Your task to perform on an android device: open app "Paramount+ | Peak Streaming" (install if not already installed) Image 0: 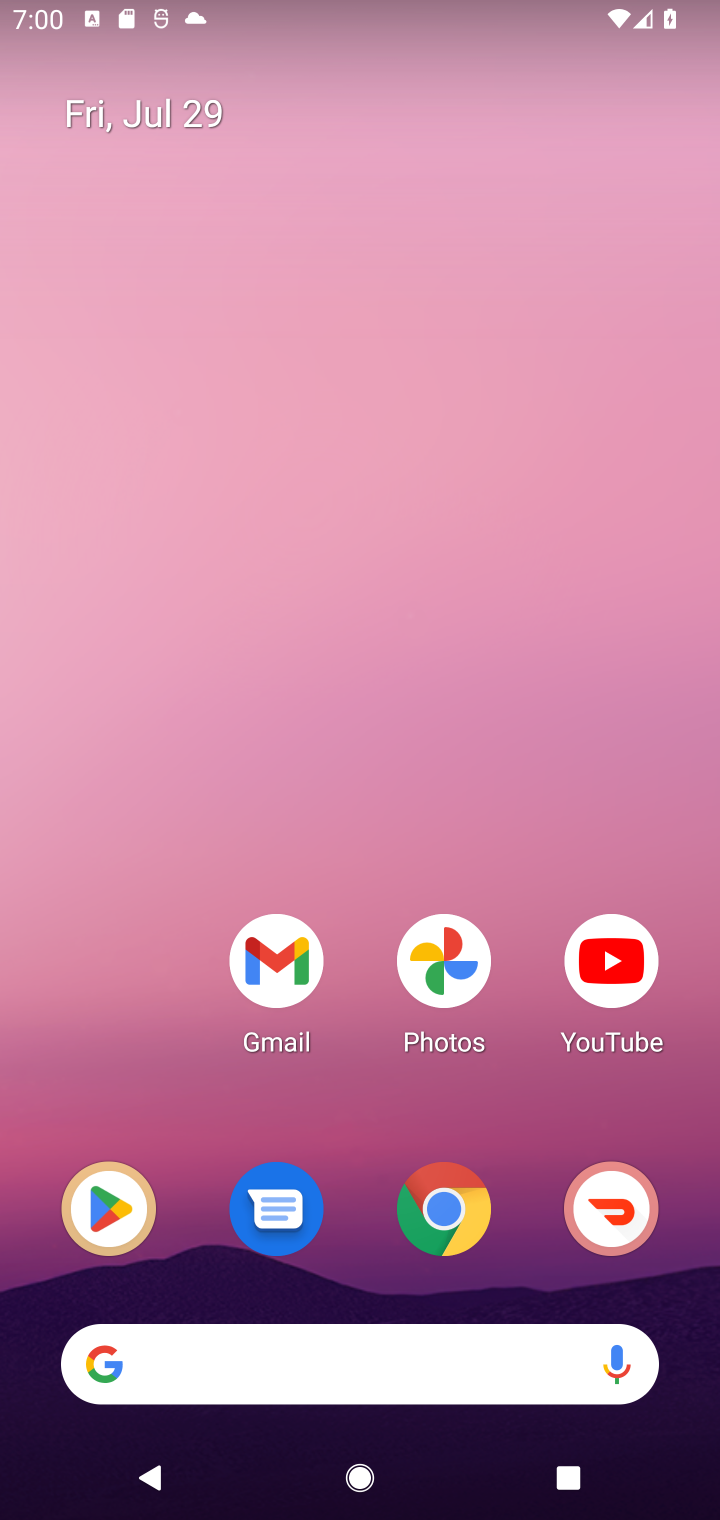
Step 0: click (106, 1231)
Your task to perform on an android device: open app "Paramount+ | Peak Streaming" (install if not already installed) Image 1: 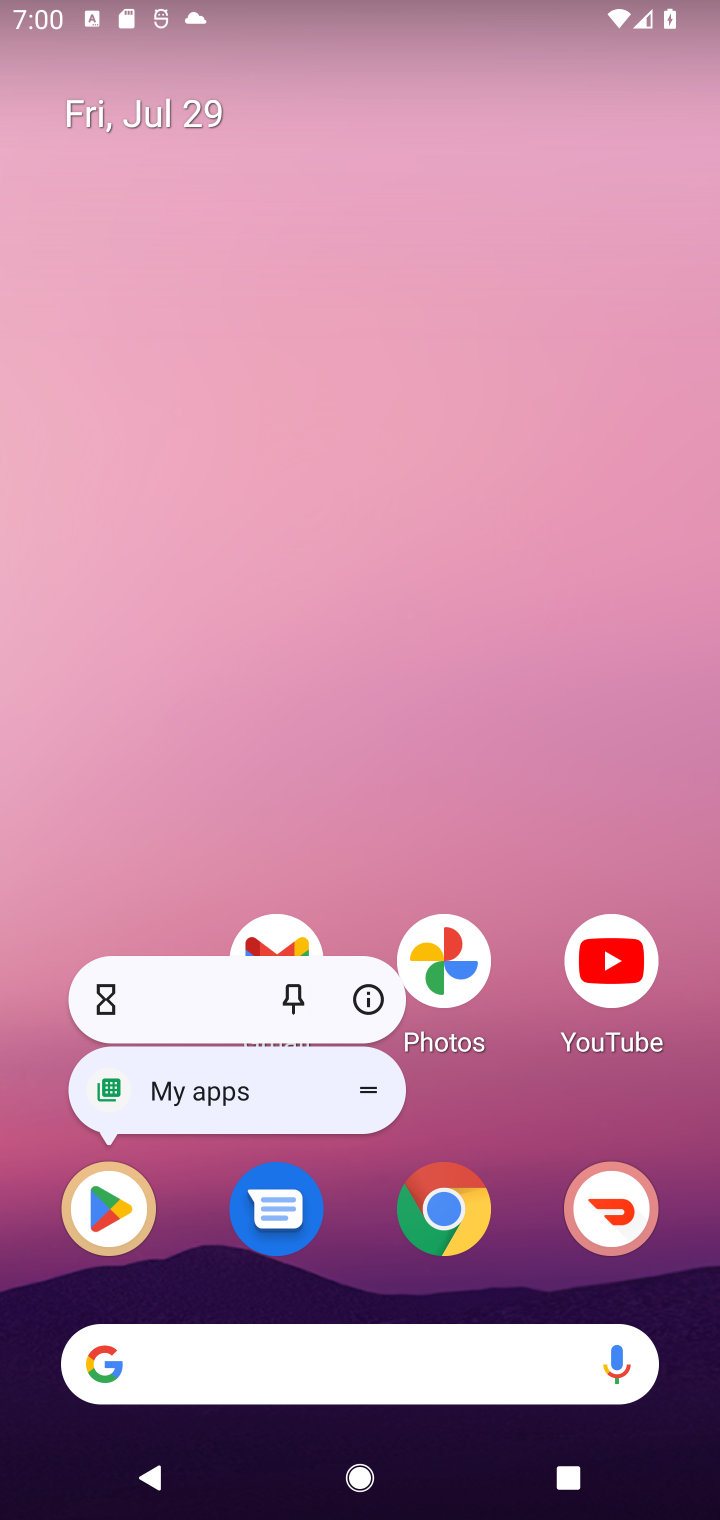
Step 1: click (106, 1231)
Your task to perform on an android device: open app "Paramount+ | Peak Streaming" (install if not already installed) Image 2: 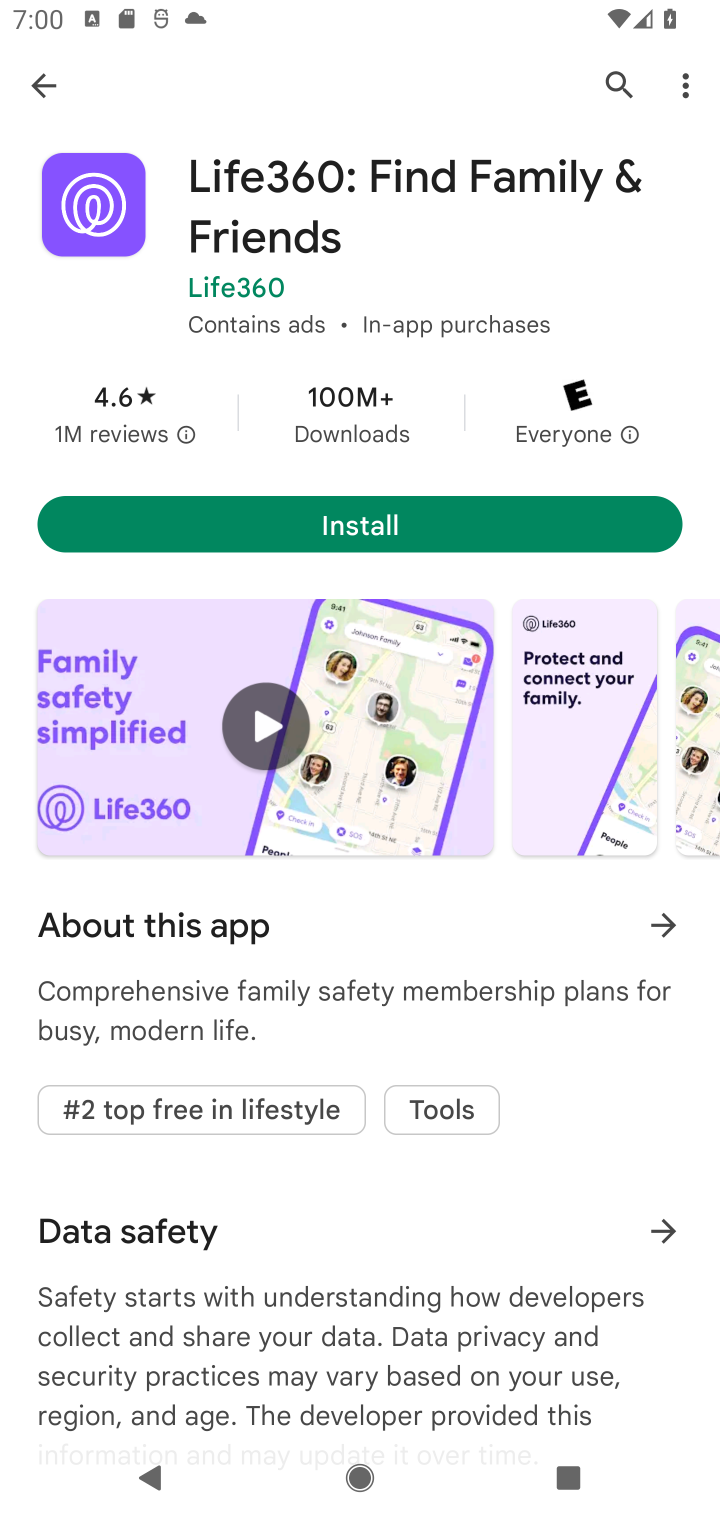
Step 2: click (611, 68)
Your task to perform on an android device: open app "Paramount+ | Peak Streaming" (install if not already installed) Image 3: 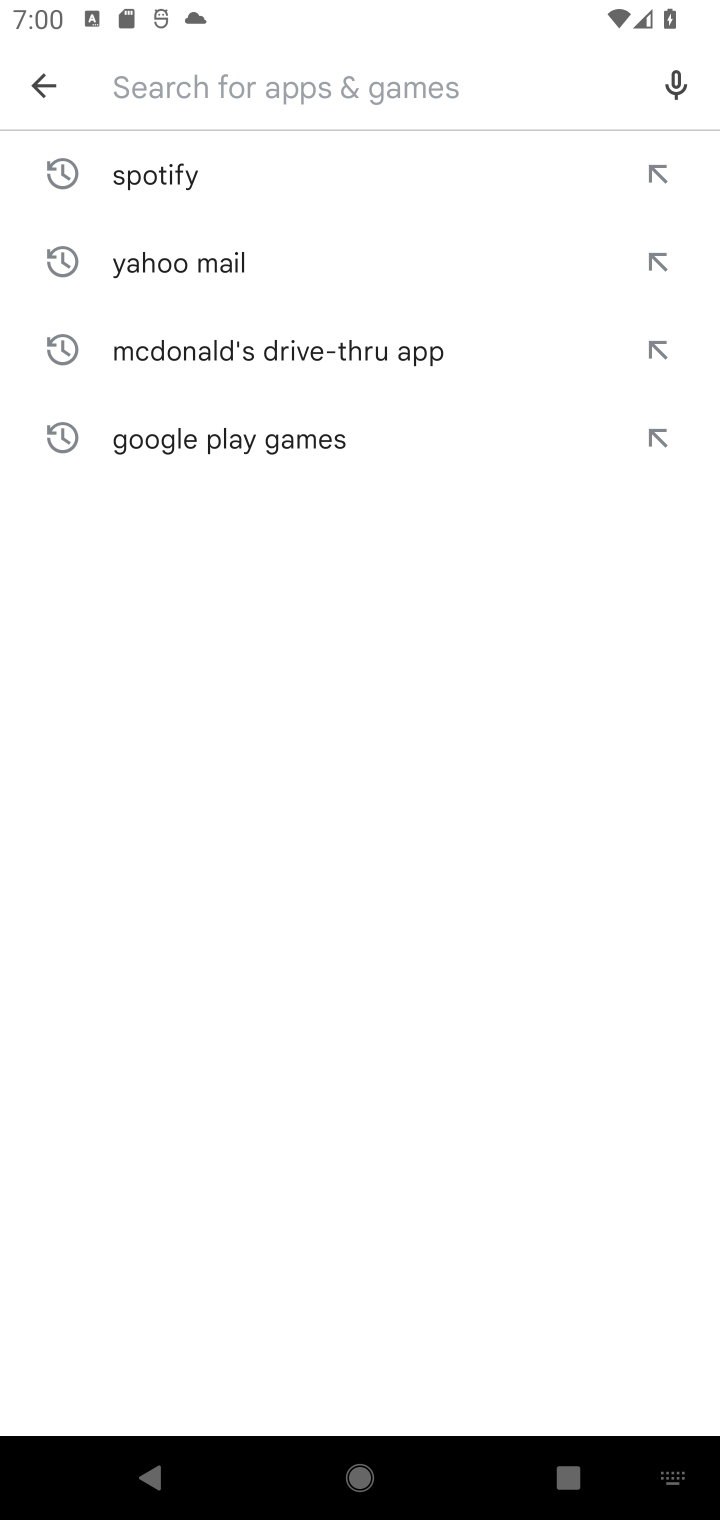
Step 3: click (377, 81)
Your task to perform on an android device: open app "Paramount+ | Peak Streaming" (install if not already installed) Image 4: 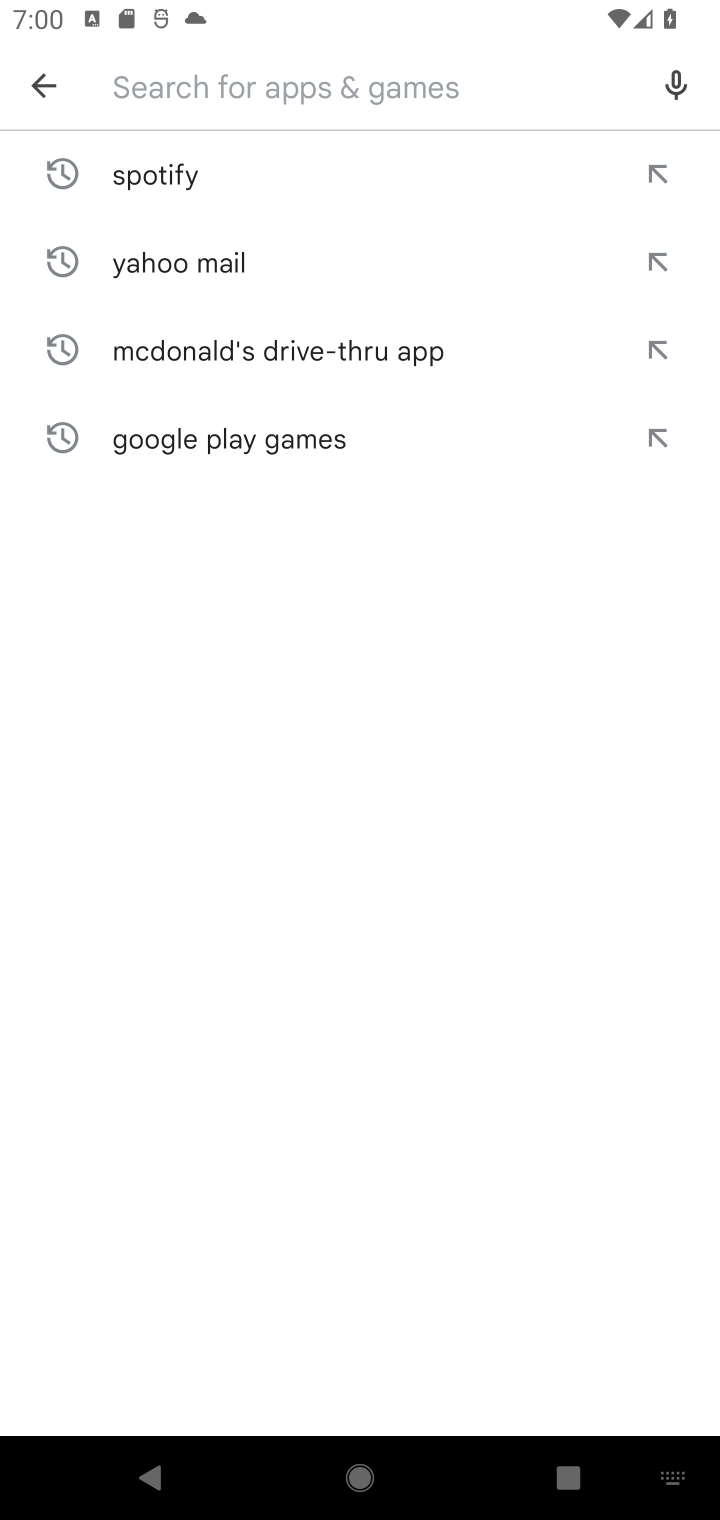
Step 4: type "Paramount+ | Peak Streaming"
Your task to perform on an android device: open app "Paramount+ | Peak Streaming" (install if not already installed) Image 5: 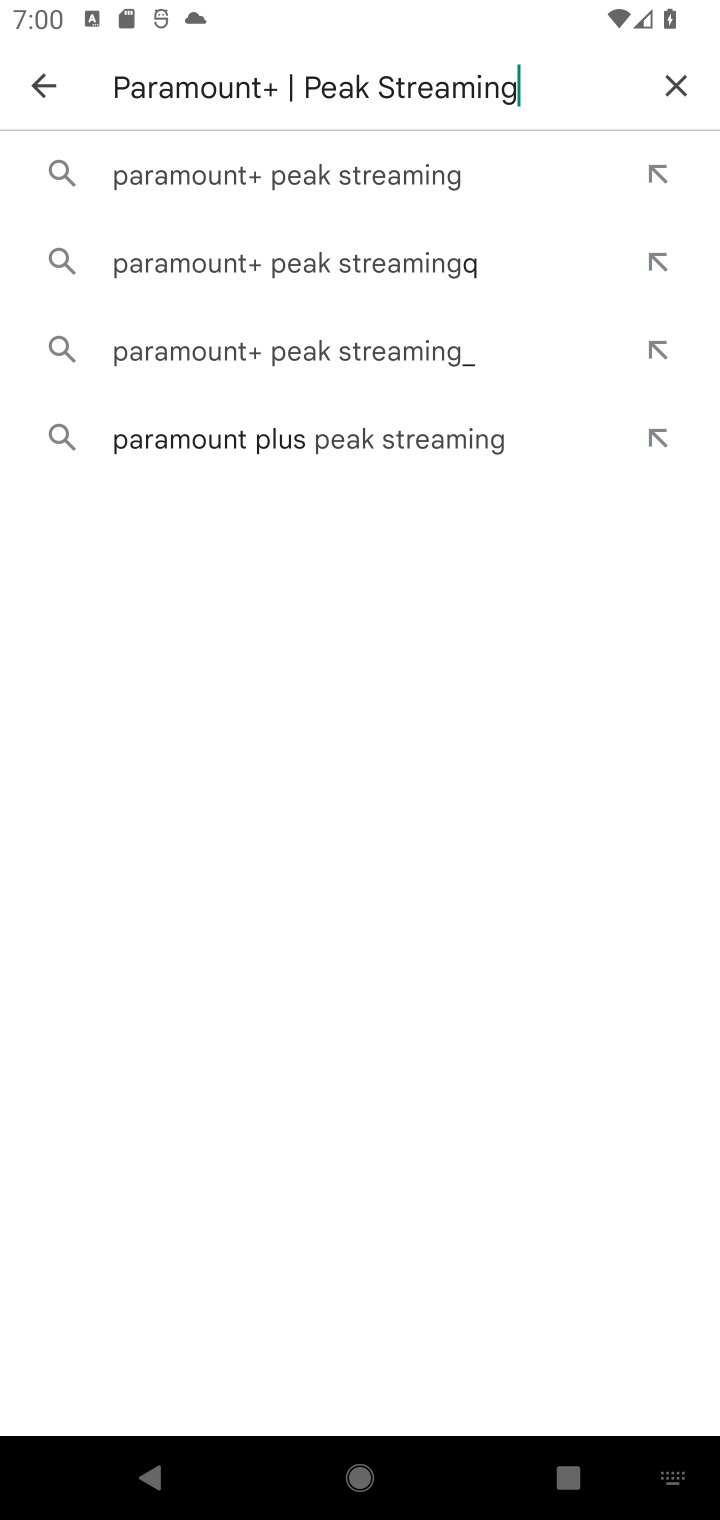
Step 5: click (160, 159)
Your task to perform on an android device: open app "Paramount+ | Peak Streaming" (install if not already installed) Image 6: 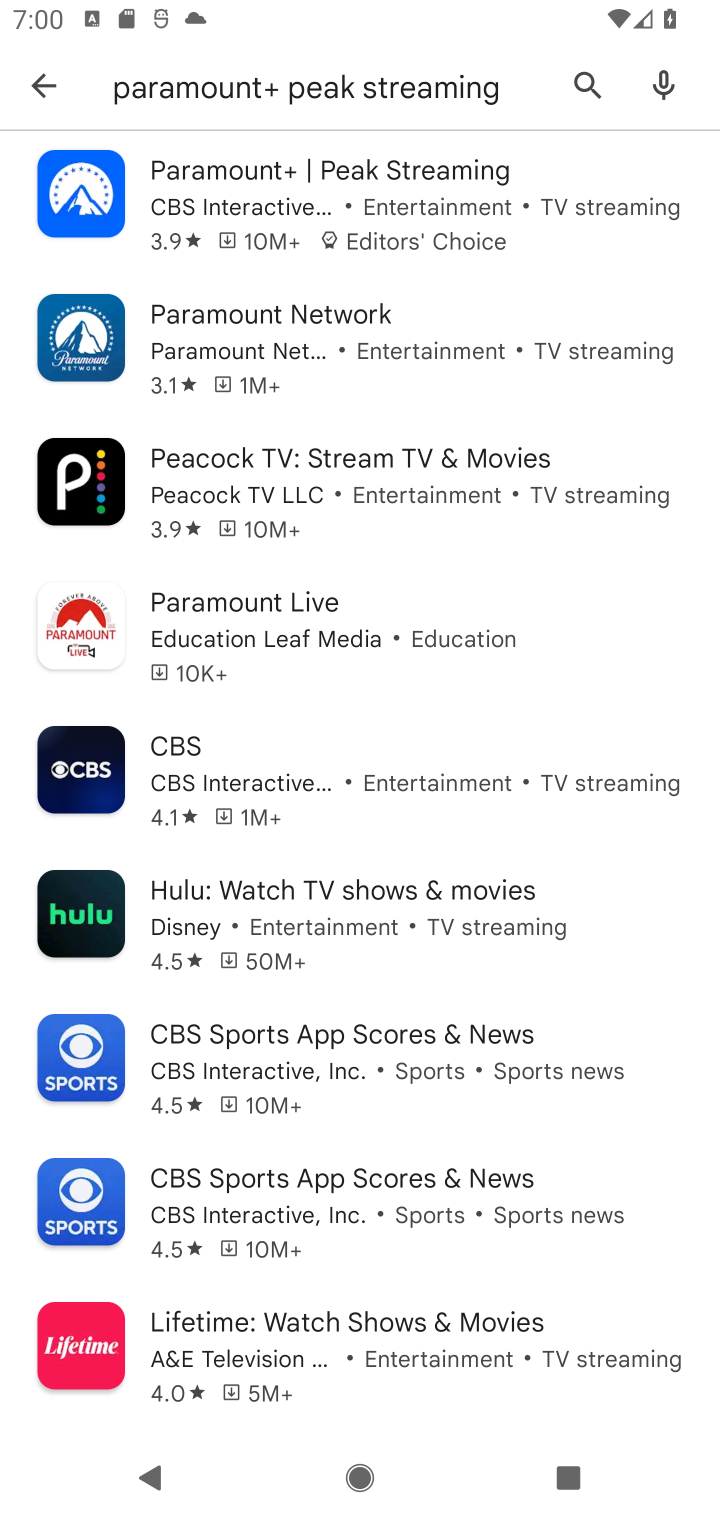
Step 6: click (228, 205)
Your task to perform on an android device: open app "Paramount+ | Peak Streaming" (install if not already installed) Image 7: 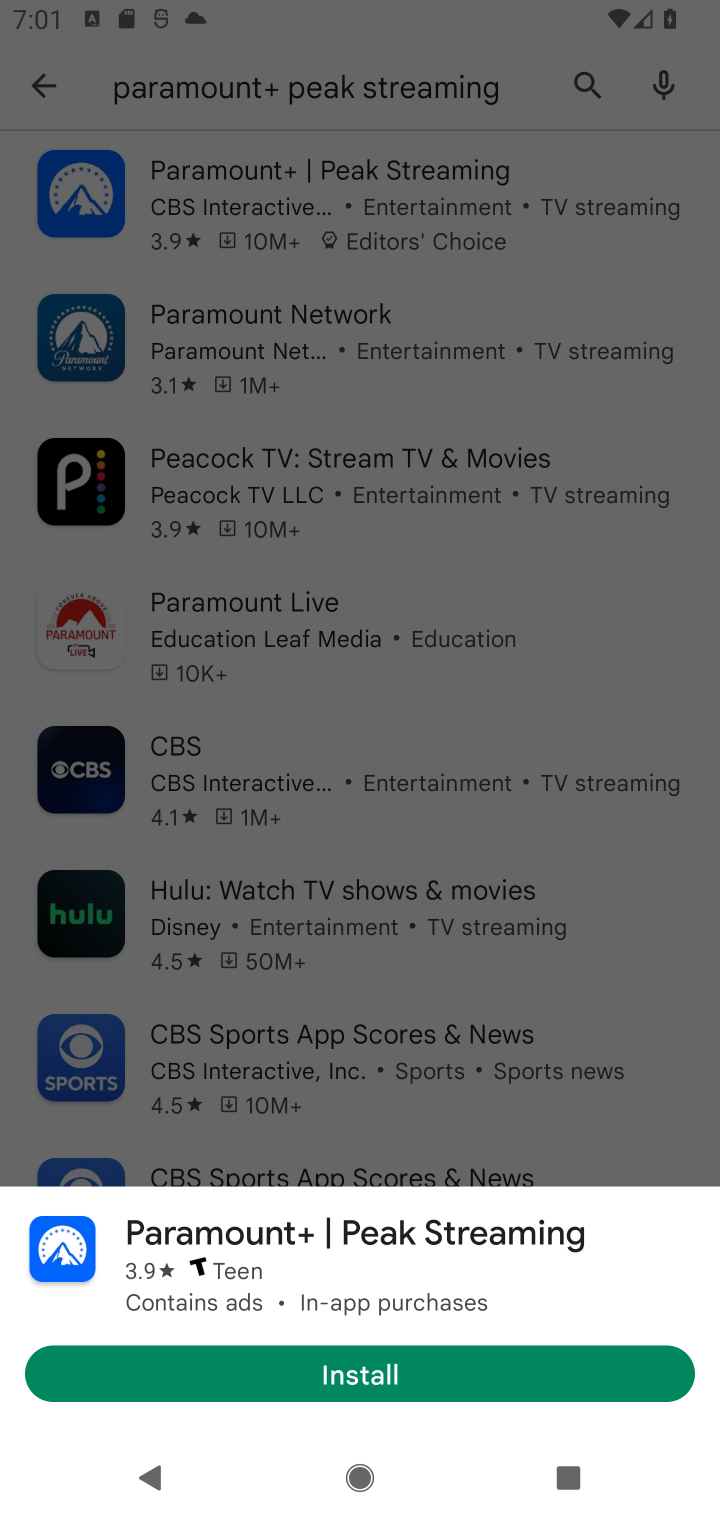
Step 7: click (311, 1366)
Your task to perform on an android device: open app "Paramount+ | Peak Streaming" (install if not already installed) Image 8: 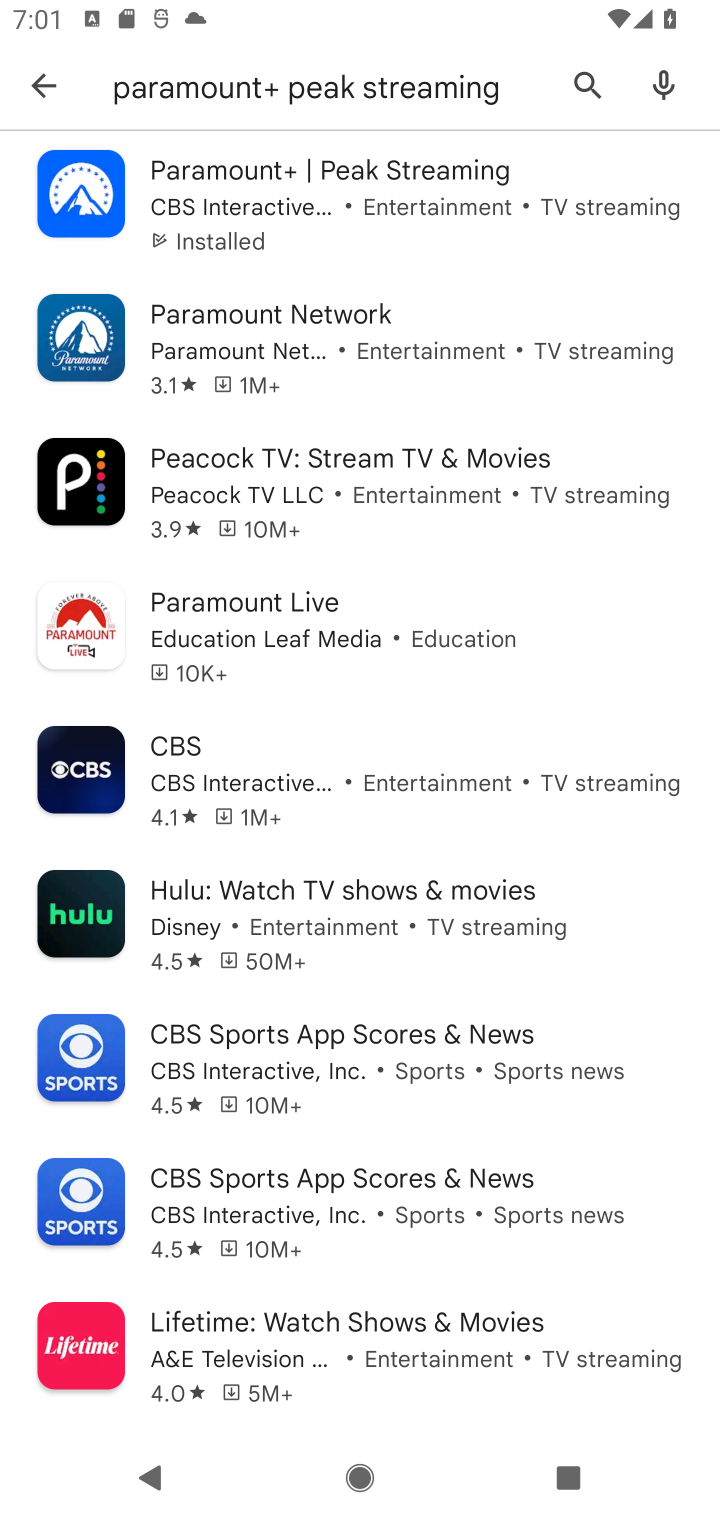
Step 8: click (259, 206)
Your task to perform on an android device: open app "Paramount+ | Peak Streaming" (install if not already installed) Image 9: 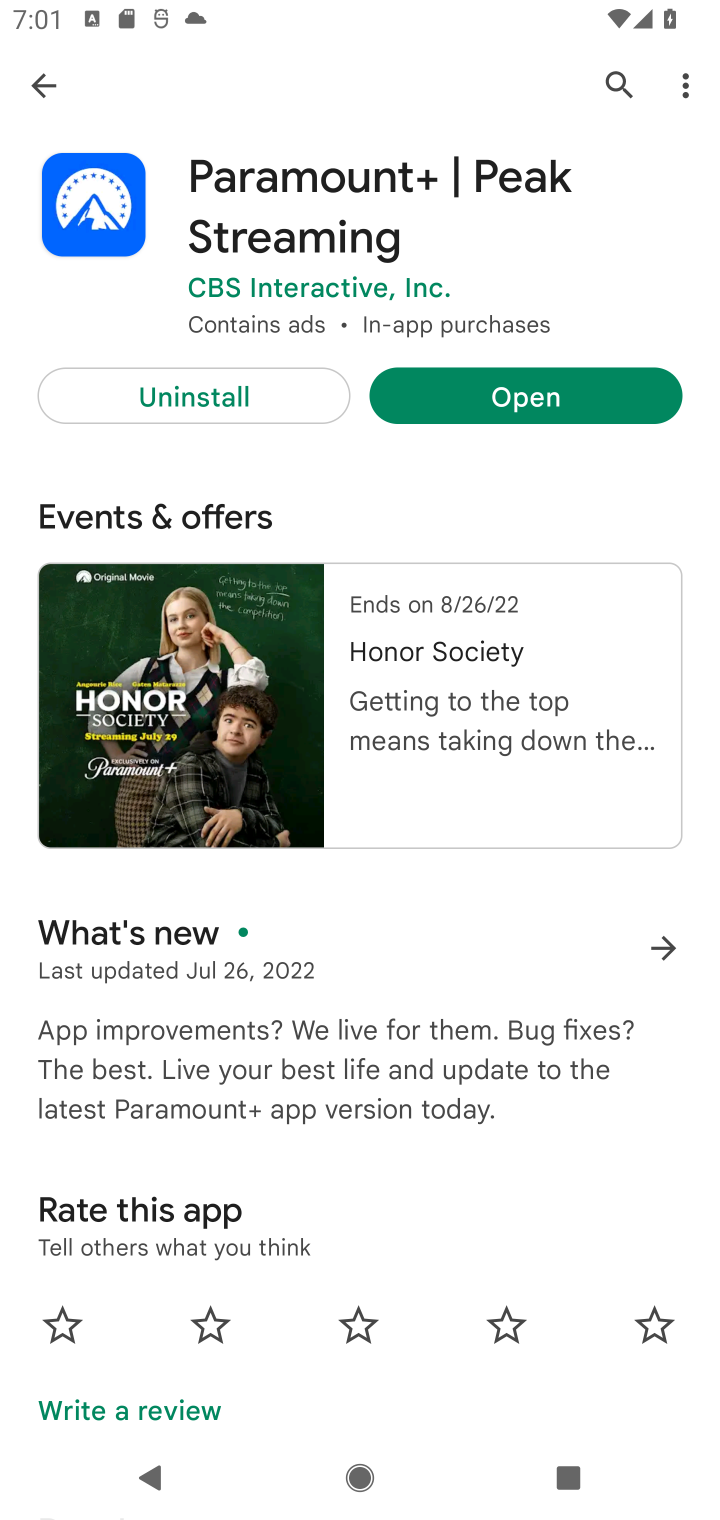
Step 9: click (468, 399)
Your task to perform on an android device: open app "Paramount+ | Peak Streaming" (install if not already installed) Image 10: 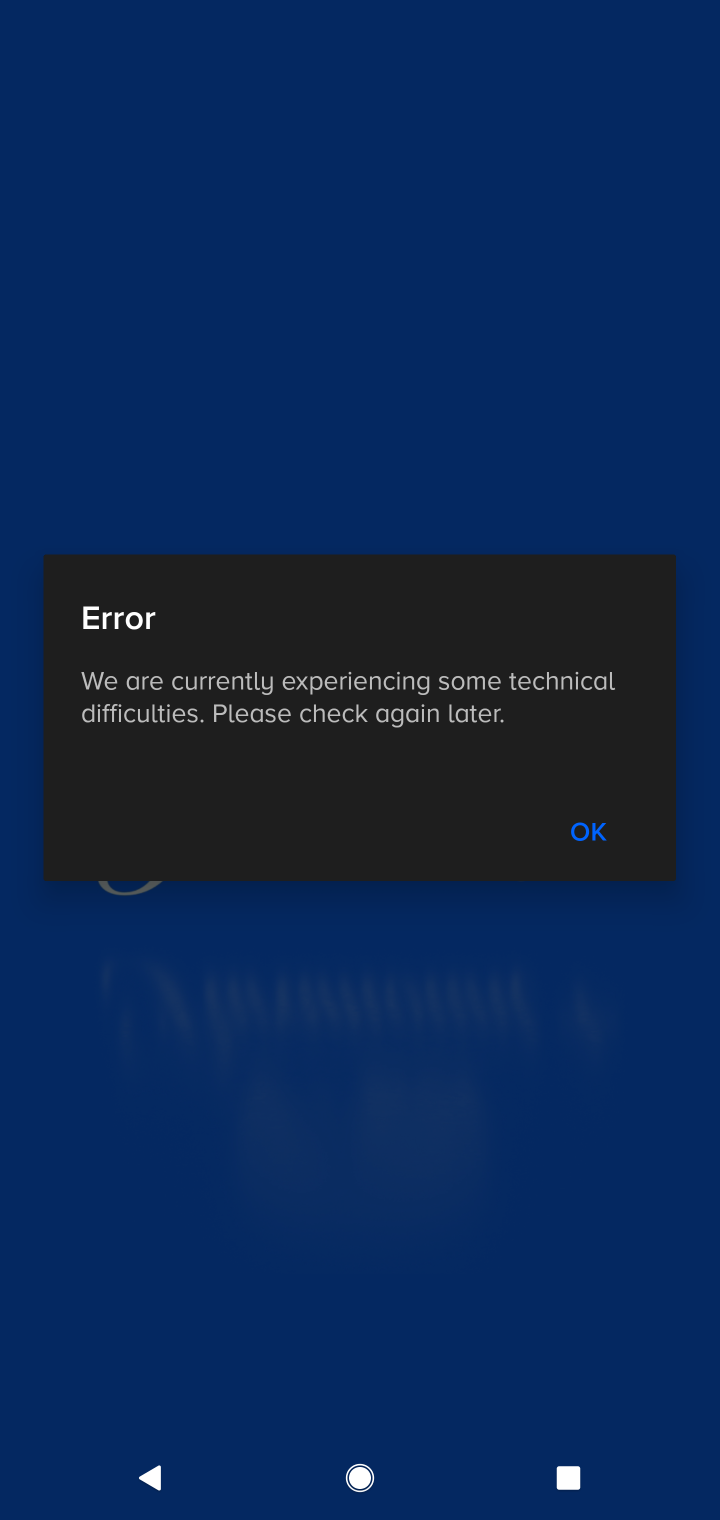
Step 10: task complete